Your task to perform on an android device: open a bookmark in the chrome app Image 0: 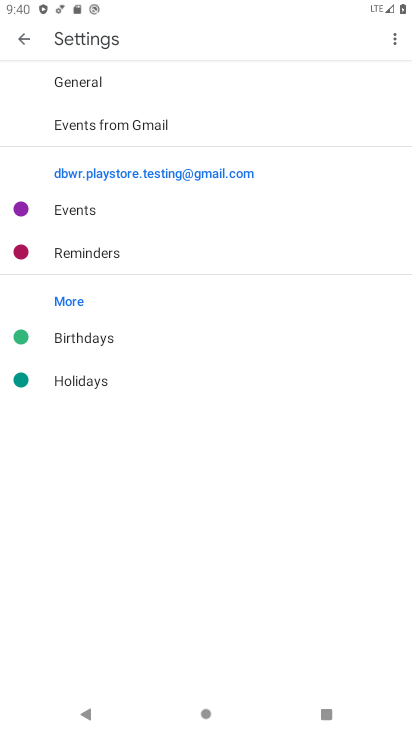
Step 0: press home button
Your task to perform on an android device: open a bookmark in the chrome app Image 1: 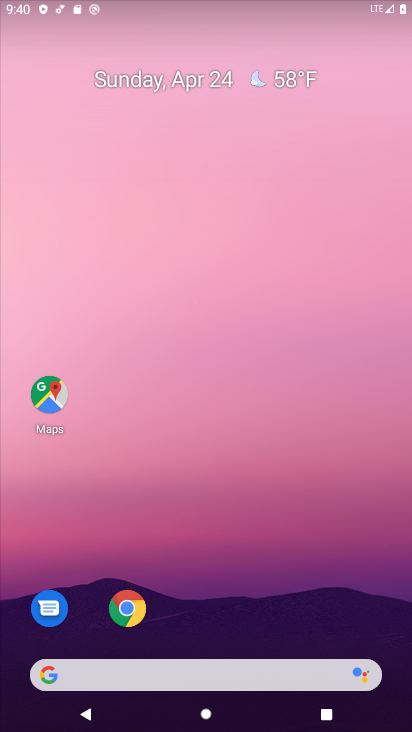
Step 1: drag from (247, 528) to (311, 90)
Your task to perform on an android device: open a bookmark in the chrome app Image 2: 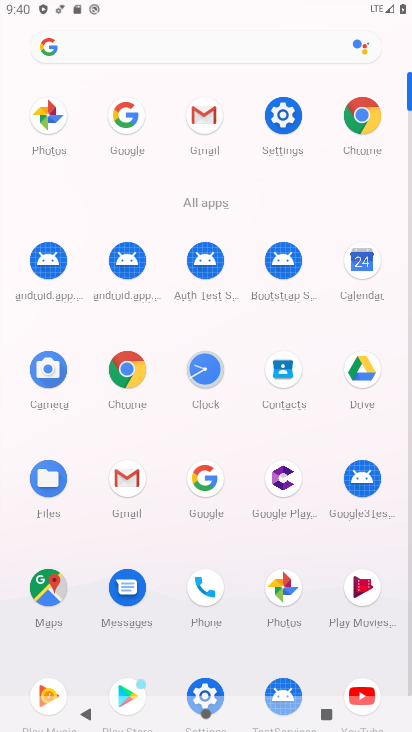
Step 2: click (311, 90)
Your task to perform on an android device: open a bookmark in the chrome app Image 3: 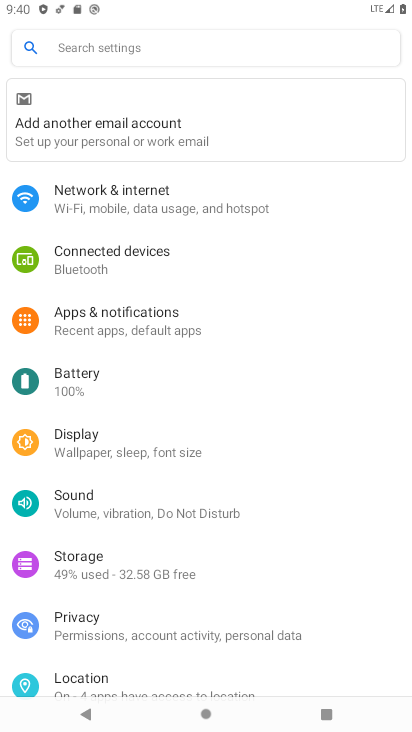
Step 3: drag from (170, 446) to (186, 88)
Your task to perform on an android device: open a bookmark in the chrome app Image 4: 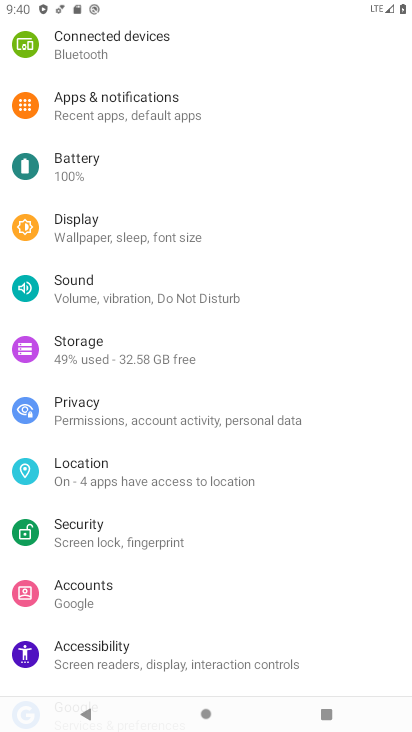
Step 4: click (197, 710)
Your task to perform on an android device: open a bookmark in the chrome app Image 5: 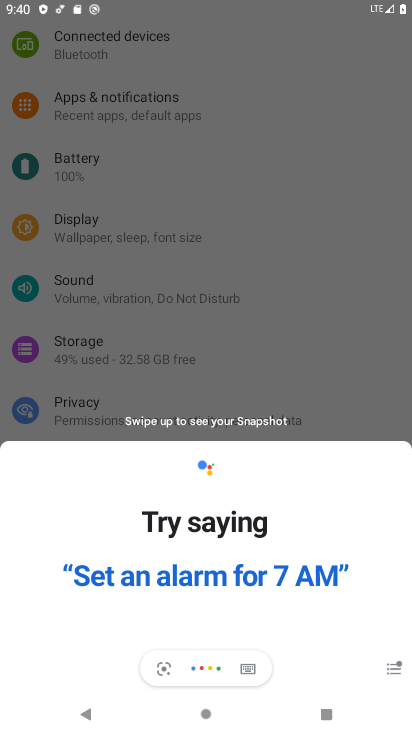
Step 5: press home button
Your task to perform on an android device: open a bookmark in the chrome app Image 6: 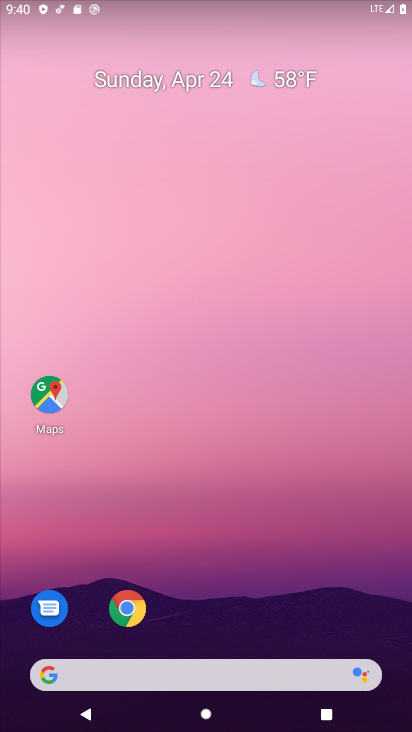
Step 6: drag from (383, 401) to (379, 77)
Your task to perform on an android device: open a bookmark in the chrome app Image 7: 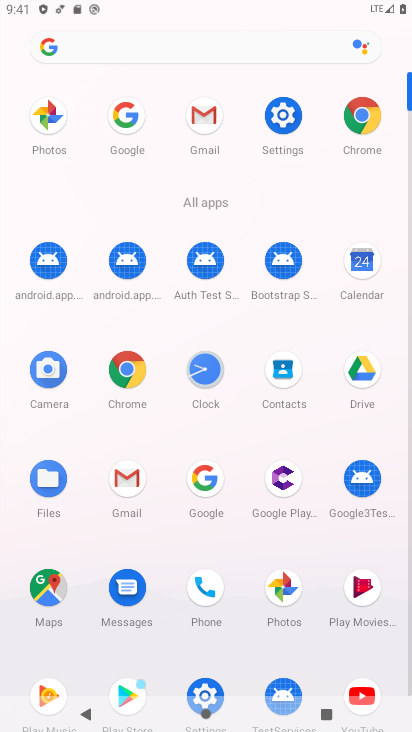
Step 7: click (369, 139)
Your task to perform on an android device: open a bookmark in the chrome app Image 8: 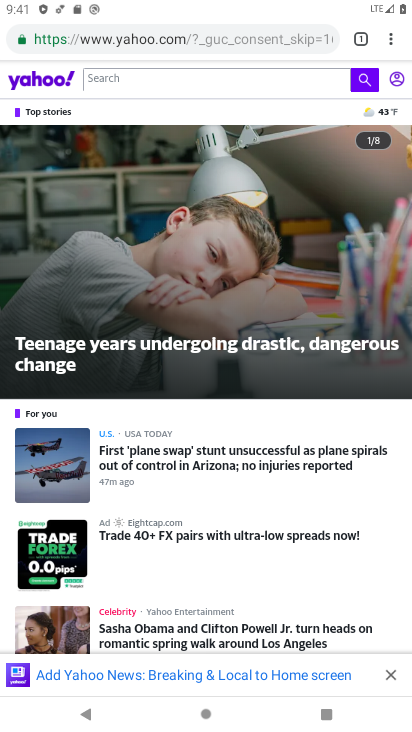
Step 8: drag from (389, 50) to (282, 160)
Your task to perform on an android device: open a bookmark in the chrome app Image 9: 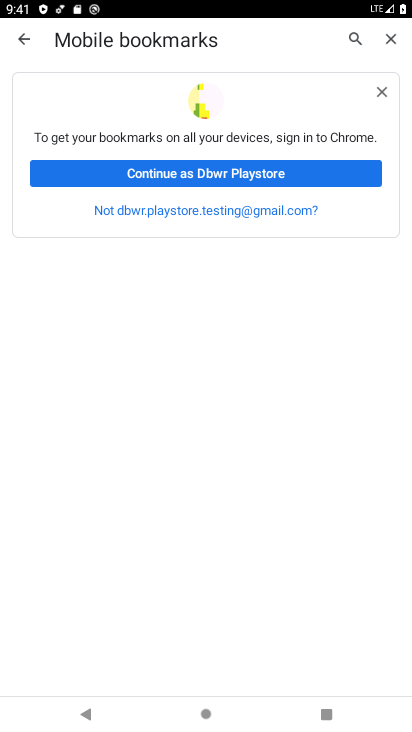
Step 9: click (291, 177)
Your task to perform on an android device: open a bookmark in the chrome app Image 10: 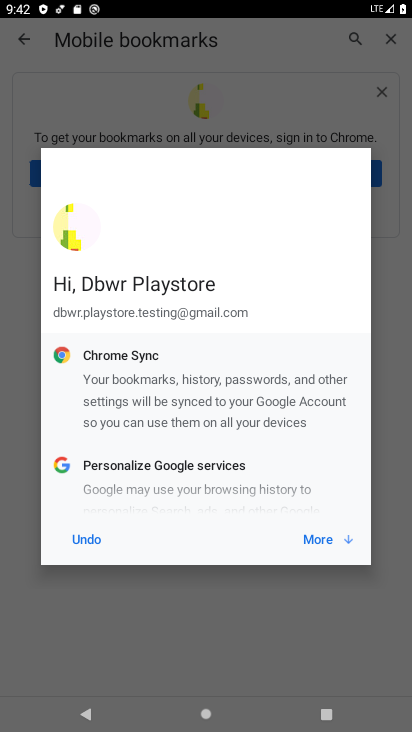
Step 10: click (314, 532)
Your task to perform on an android device: open a bookmark in the chrome app Image 11: 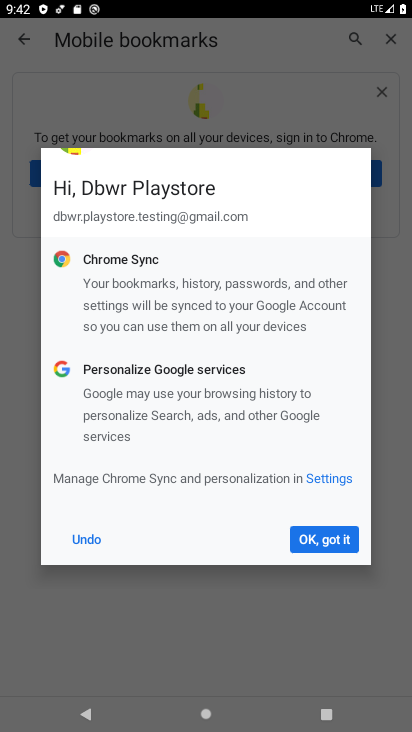
Step 11: click (314, 532)
Your task to perform on an android device: open a bookmark in the chrome app Image 12: 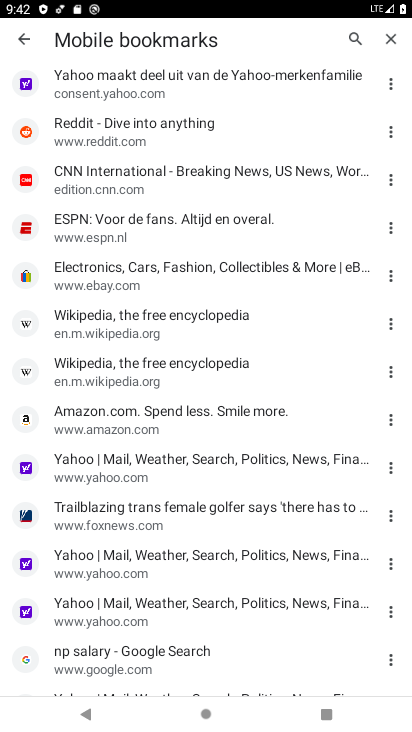
Step 12: click (182, 232)
Your task to perform on an android device: open a bookmark in the chrome app Image 13: 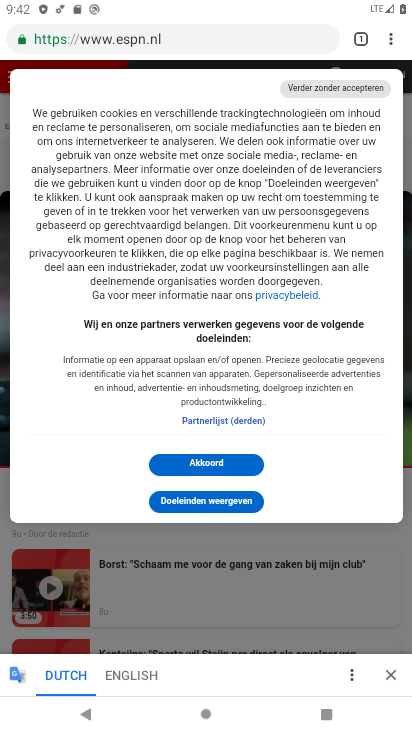
Step 13: task complete